Your task to perform on an android device: Do I have any events this weekend? Image 0: 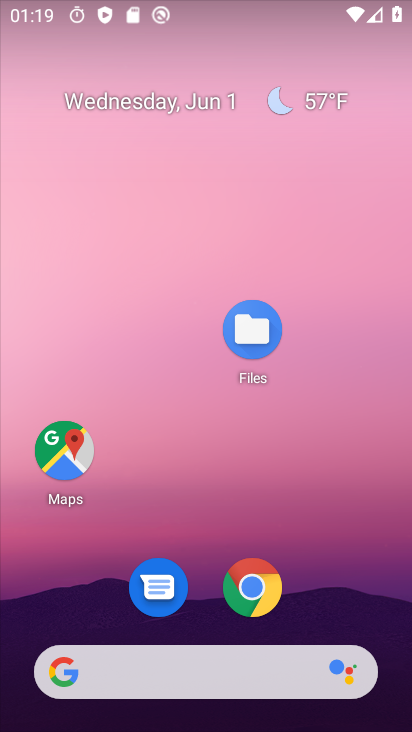
Step 0: press home button
Your task to perform on an android device: Do I have any events this weekend? Image 1: 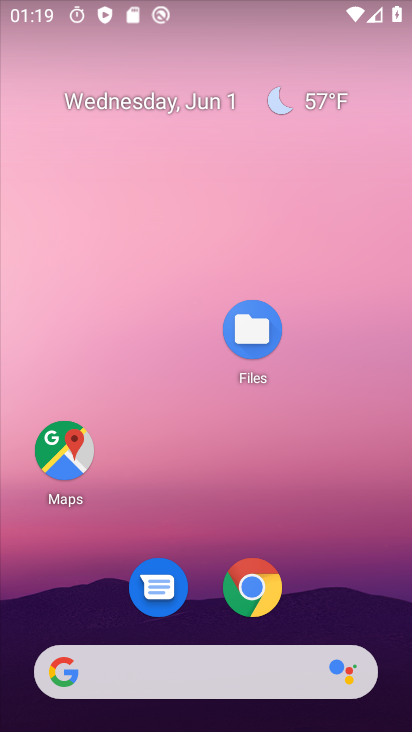
Step 1: drag from (340, 636) to (357, 202)
Your task to perform on an android device: Do I have any events this weekend? Image 2: 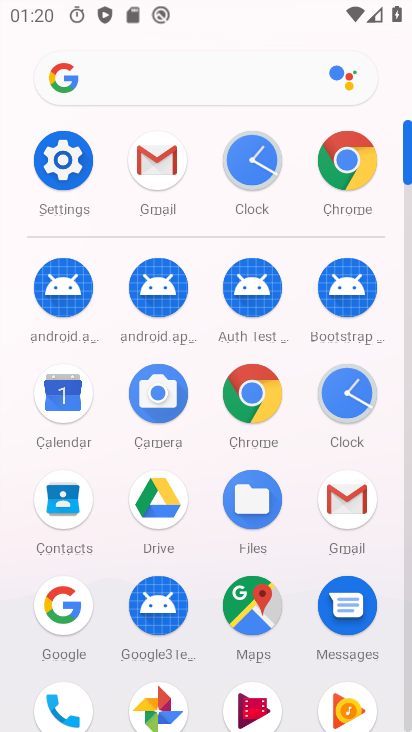
Step 2: click (62, 409)
Your task to perform on an android device: Do I have any events this weekend? Image 3: 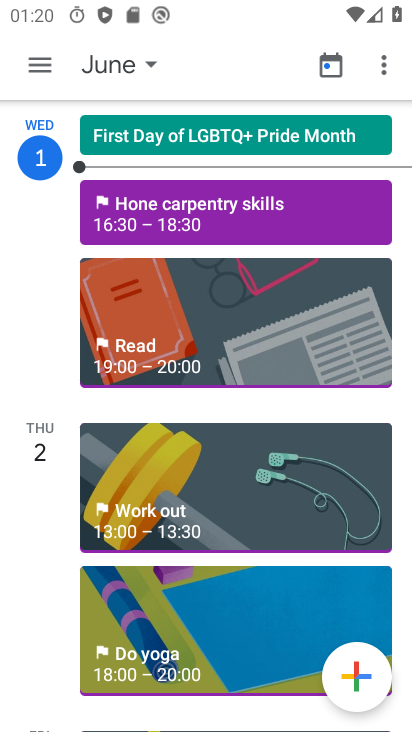
Step 3: click (147, 60)
Your task to perform on an android device: Do I have any events this weekend? Image 4: 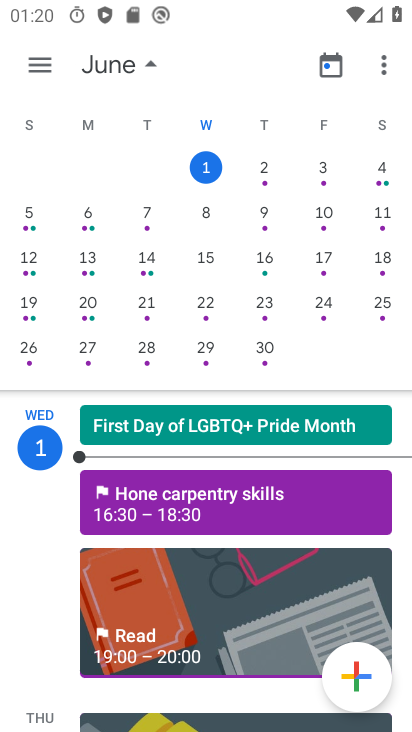
Step 4: click (156, 52)
Your task to perform on an android device: Do I have any events this weekend? Image 5: 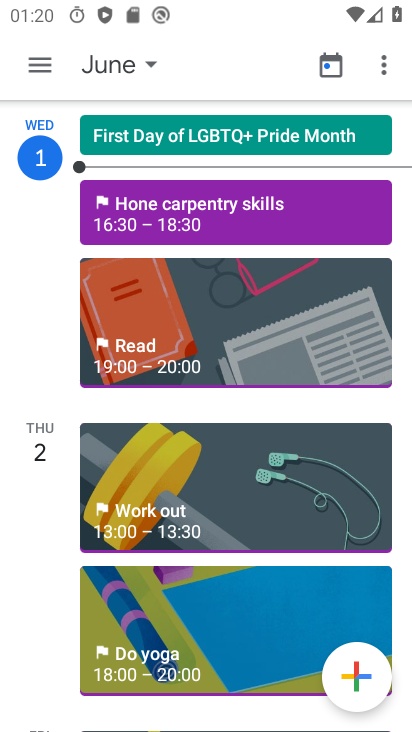
Step 5: task complete